Your task to perform on an android device: Do I have any events today? Image 0: 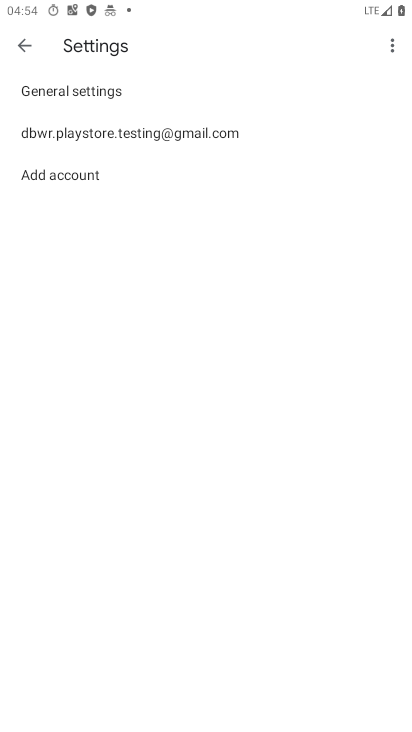
Step 0: press home button
Your task to perform on an android device: Do I have any events today? Image 1: 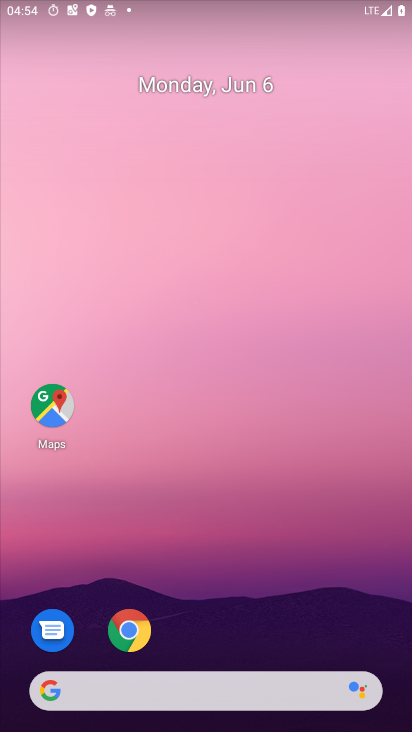
Step 1: drag from (316, 613) to (353, 101)
Your task to perform on an android device: Do I have any events today? Image 2: 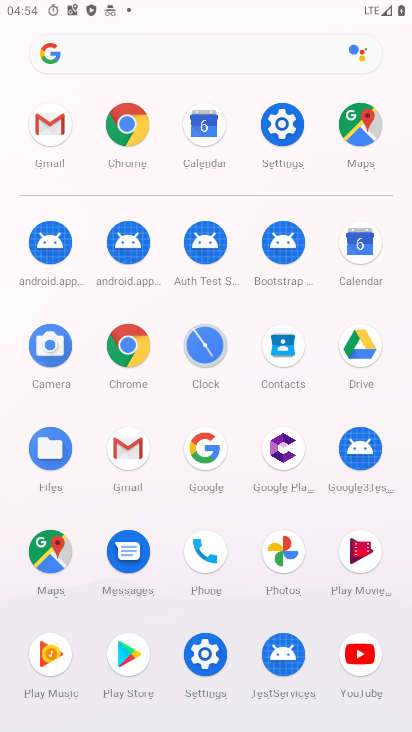
Step 2: click (368, 240)
Your task to perform on an android device: Do I have any events today? Image 3: 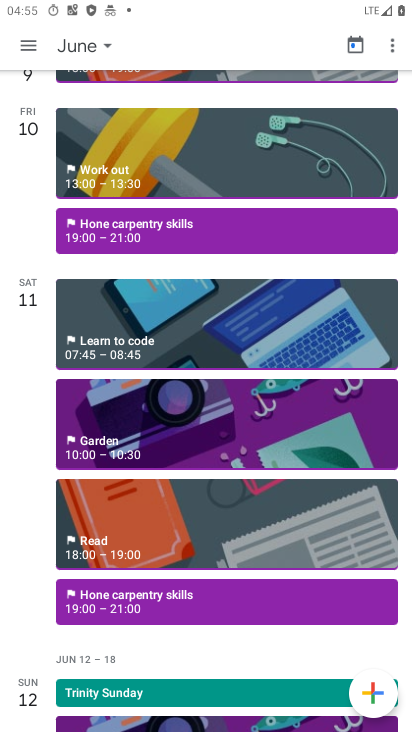
Step 3: task complete